Your task to perform on an android device: When is my next meeting? Image 0: 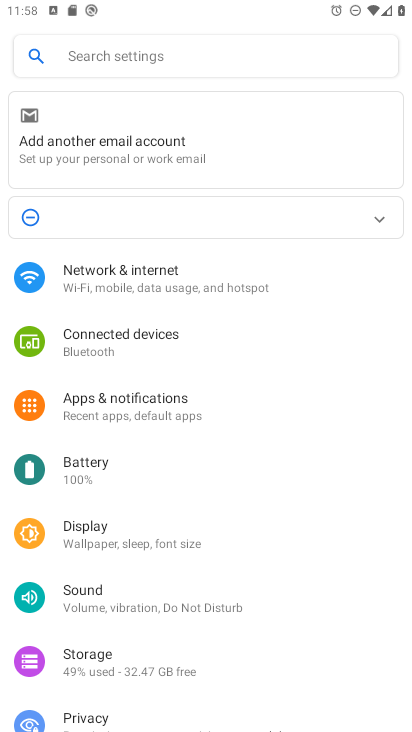
Step 0: press home button
Your task to perform on an android device: When is my next meeting? Image 1: 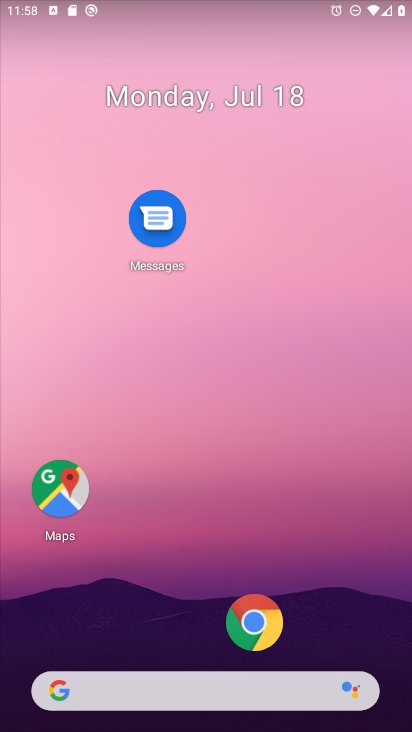
Step 1: drag from (230, 691) to (279, 110)
Your task to perform on an android device: When is my next meeting? Image 2: 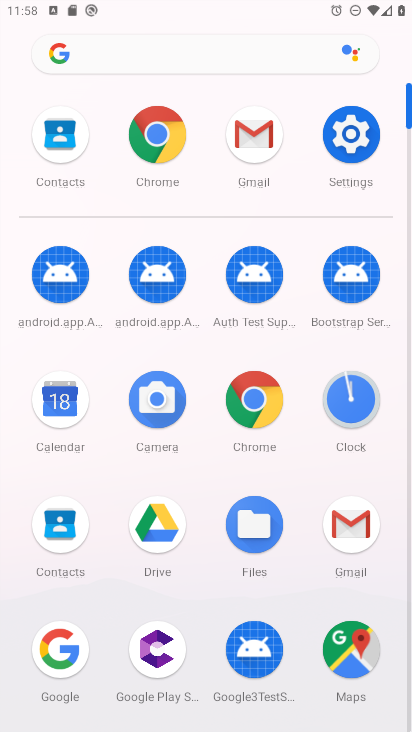
Step 2: drag from (248, 542) to (244, 280)
Your task to perform on an android device: When is my next meeting? Image 3: 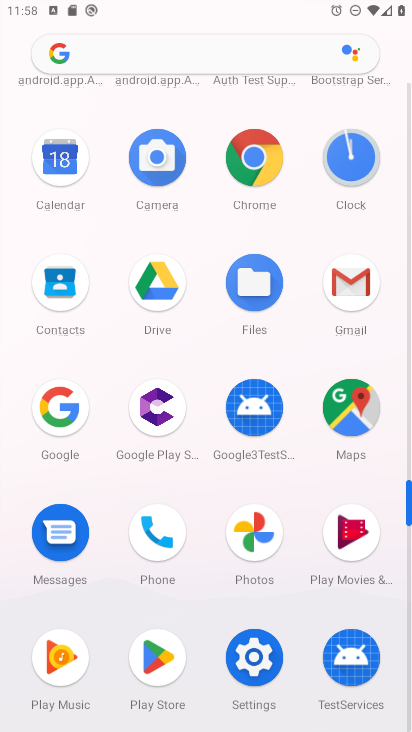
Step 3: click (70, 173)
Your task to perform on an android device: When is my next meeting? Image 4: 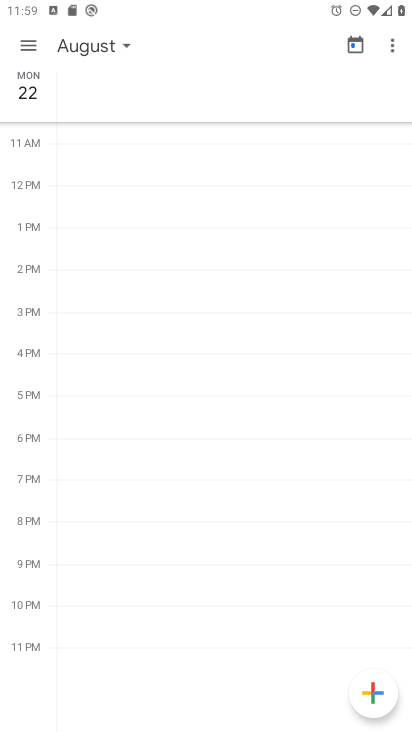
Step 4: click (45, 41)
Your task to perform on an android device: When is my next meeting? Image 5: 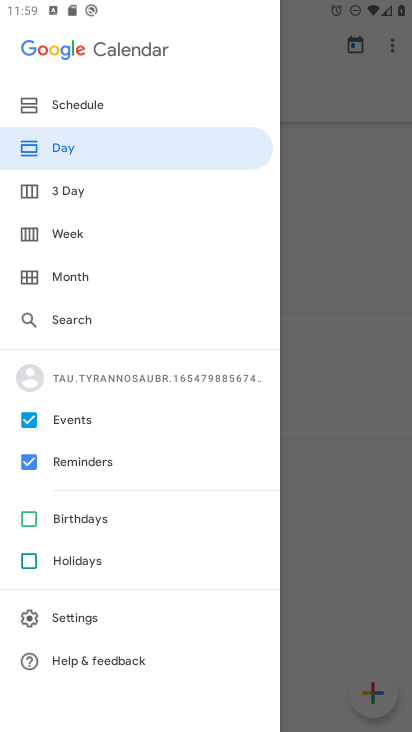
Step 5: click (104, 96)
Your task to perform on an android device: When is my next meeting? Image 6: 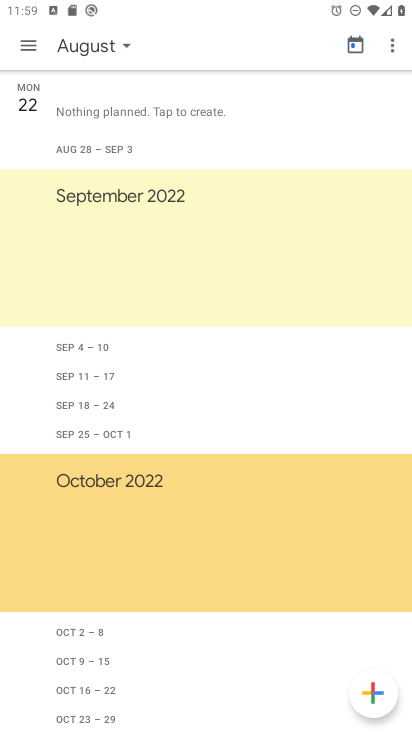
Step 6: click (32, 41)
Your task to perform on an android device: When is my next meeting? Image 7: 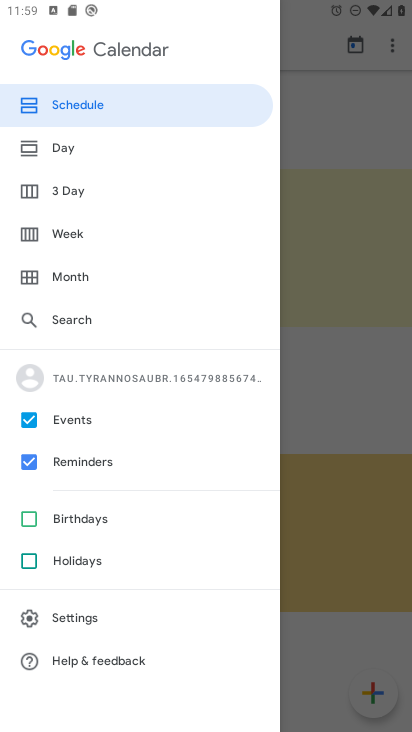
Step 7: click (379, 334)
Your task to perform on an android device: When is my next meeting? Image 8: 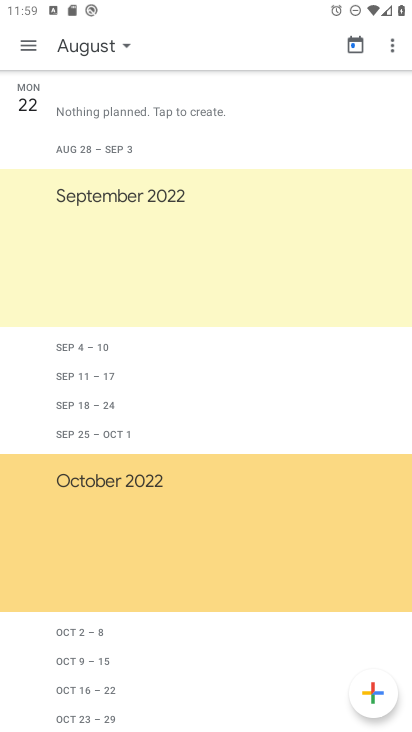
Step 8: task complete